Your task to perform on an android device: Search for "macbook air" on target, select the first entry, and add it to the cart. Image 0: 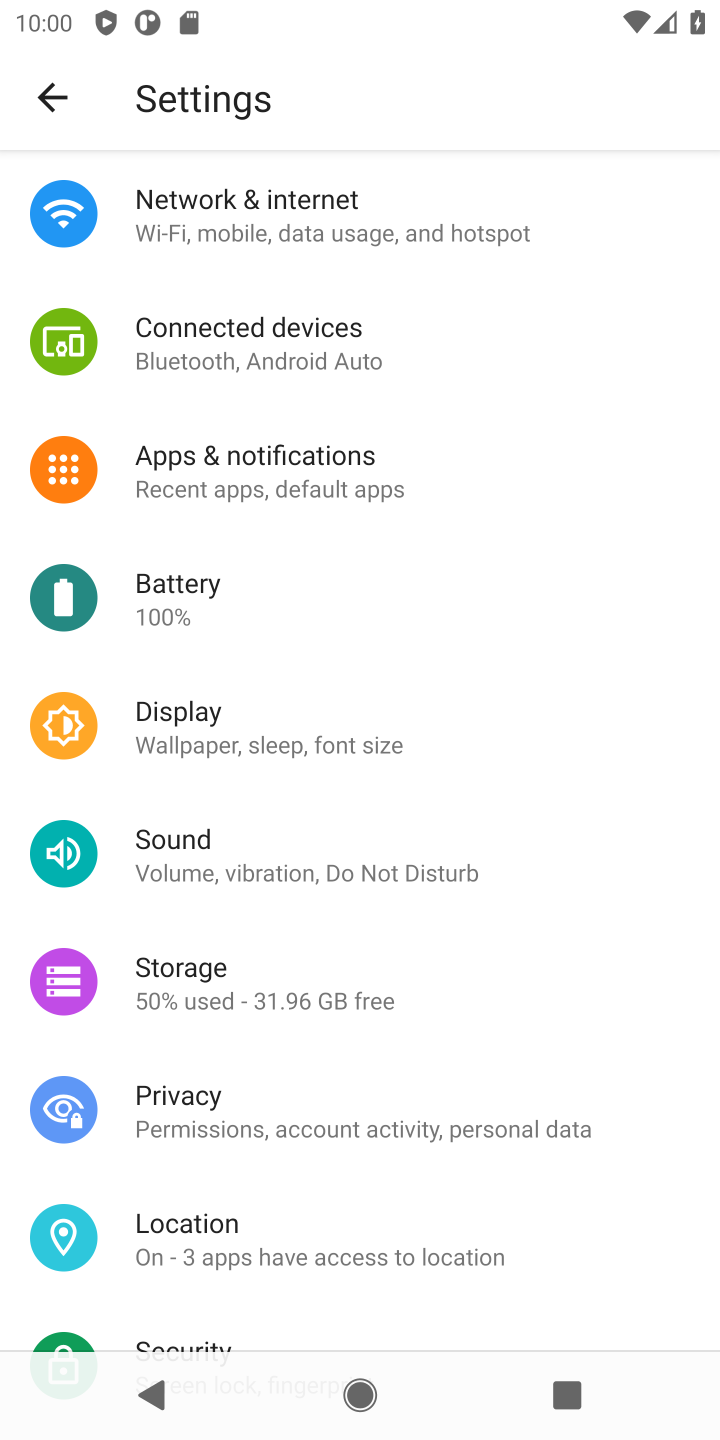
Step 0: press home button
Your task to perform on an android device: Search for "macbook air" on target, select the first entry, and add it to the cart. Image 1: 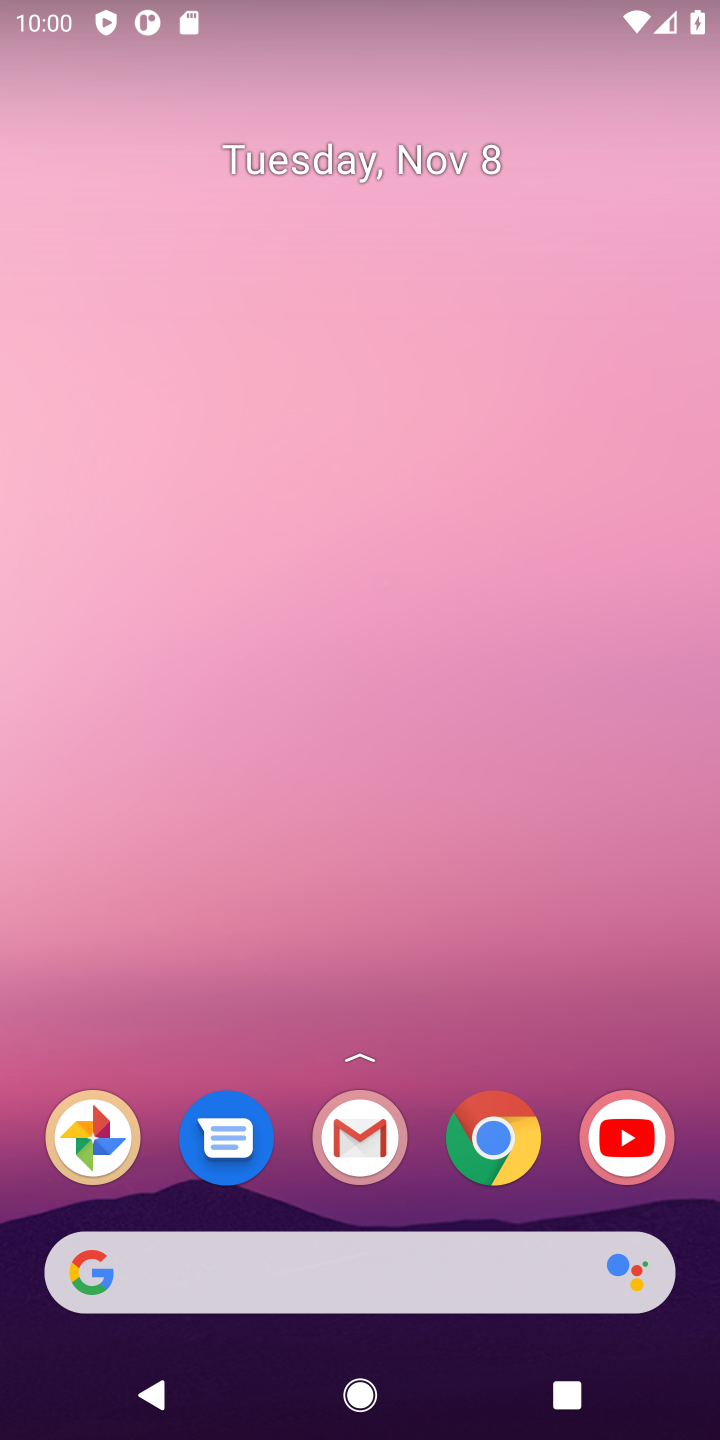
Step 1: click (493, 1139)
Your task to perform on an android device: Search for "macbook air" on target, select the first entry, and add it to the cart. Image 2: 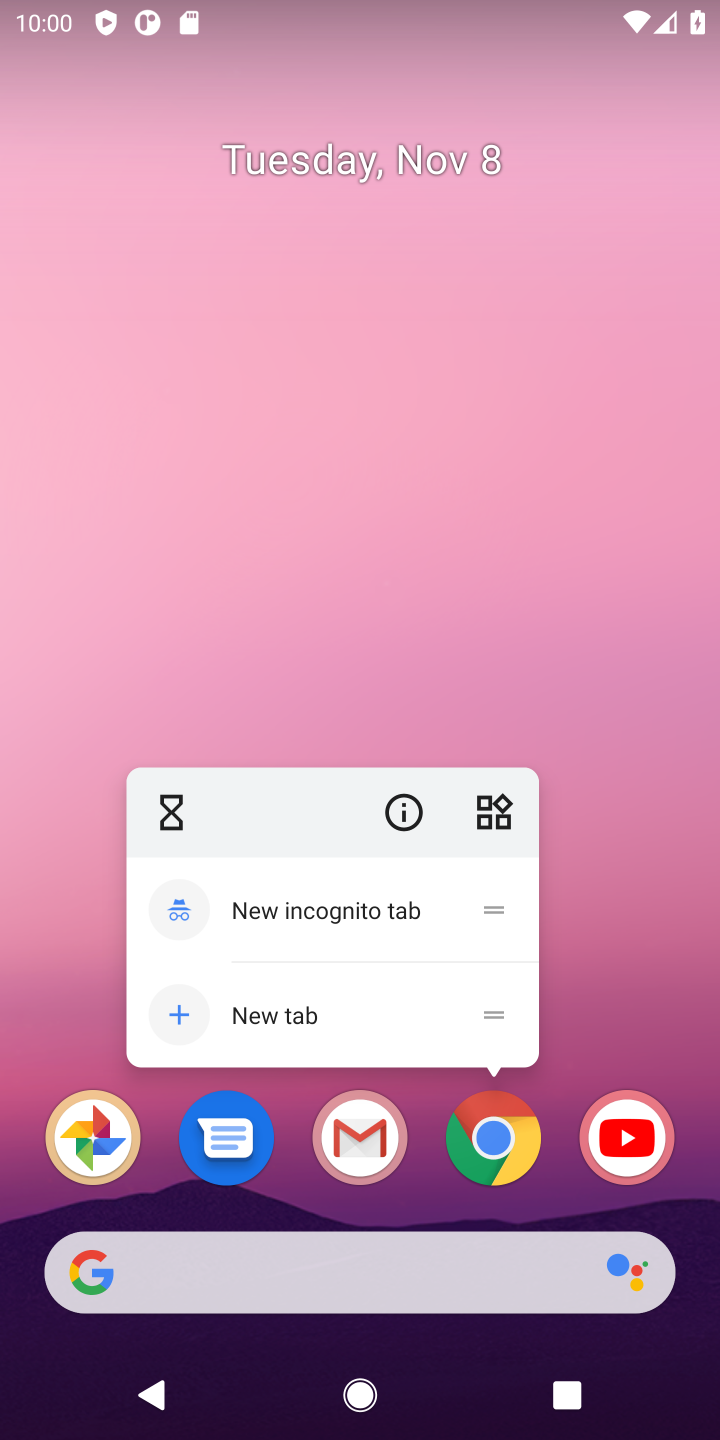
Step 2: click (493, 1144)
Your task to perform on an android device: Search for "macbook air" on target, select the first entry, and add it to the cart. Image 3: 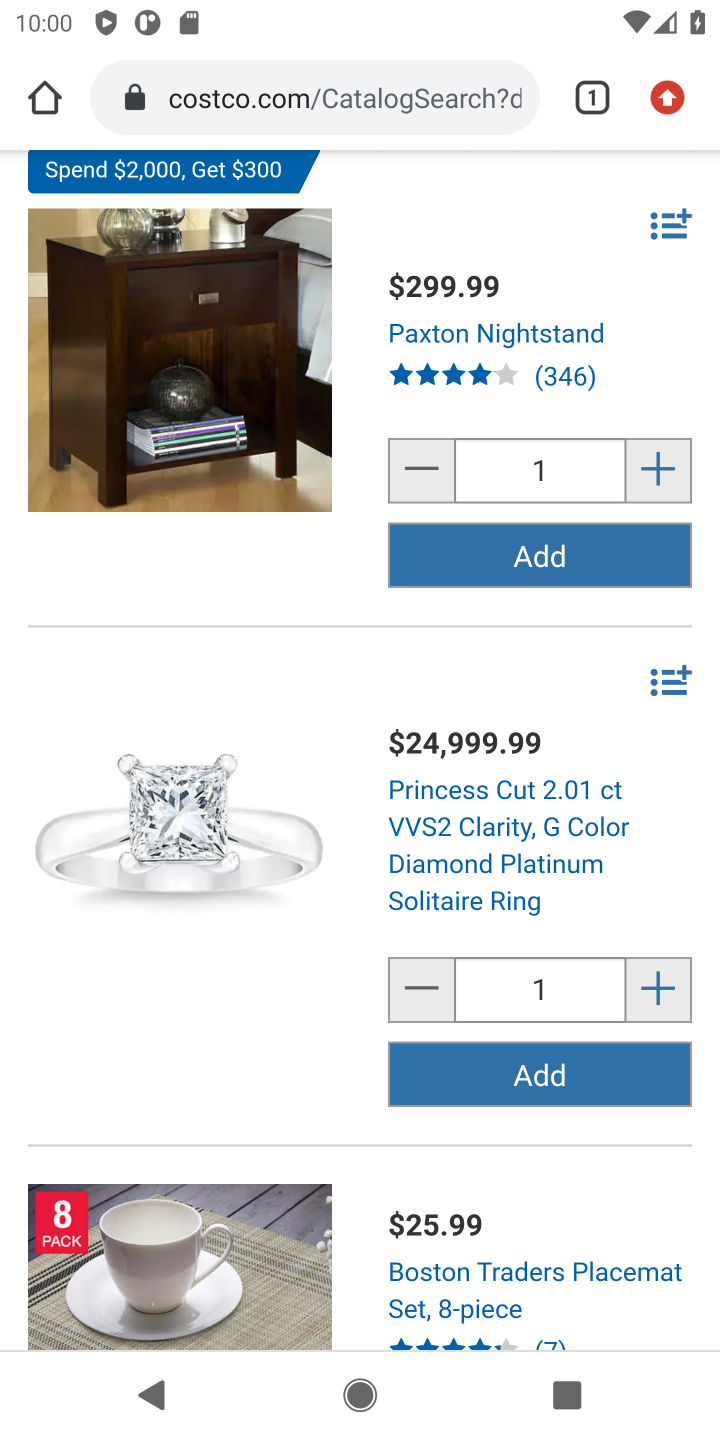
Step 3: click (369, 95)
Your task to perform on an android device: Search for "macbook air" on target, select the first entry, and add it to the cart. Image 4: 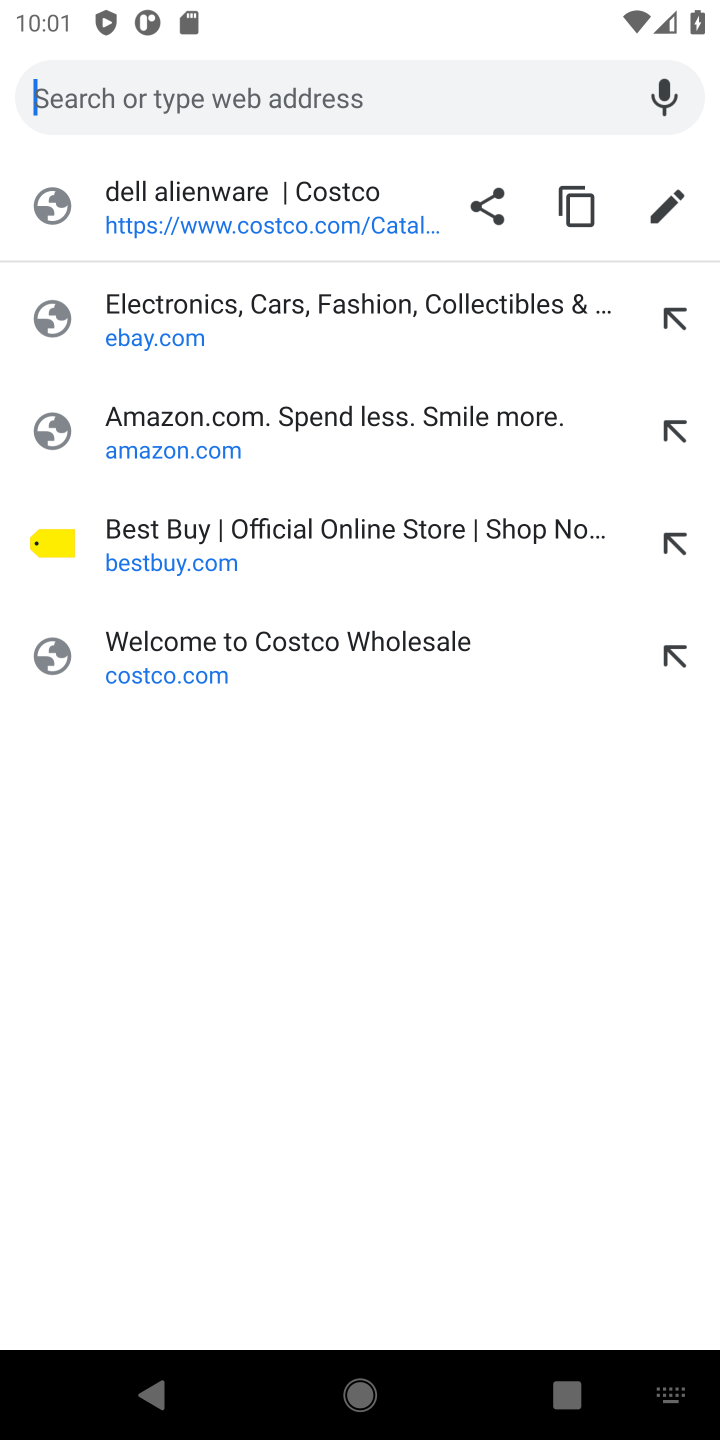
Step 4: type "target"
Your task to perform on an android device: Search for "macbook air" on target, select the first entry, and add it to the cart. Image 5: 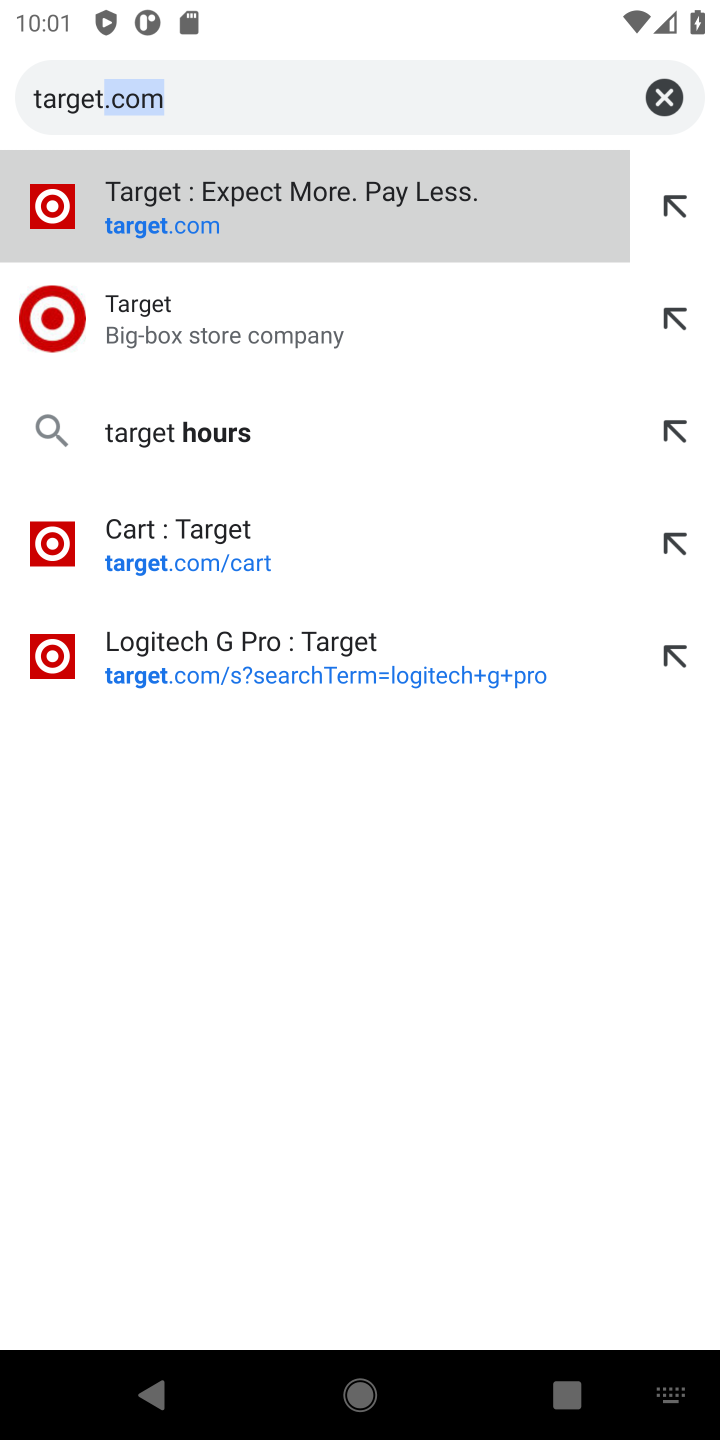
Step 5: press enter
Your task to perform on an android device: Search for "macbook air" on target, select the first entry, and add it to the cart. Image 6: 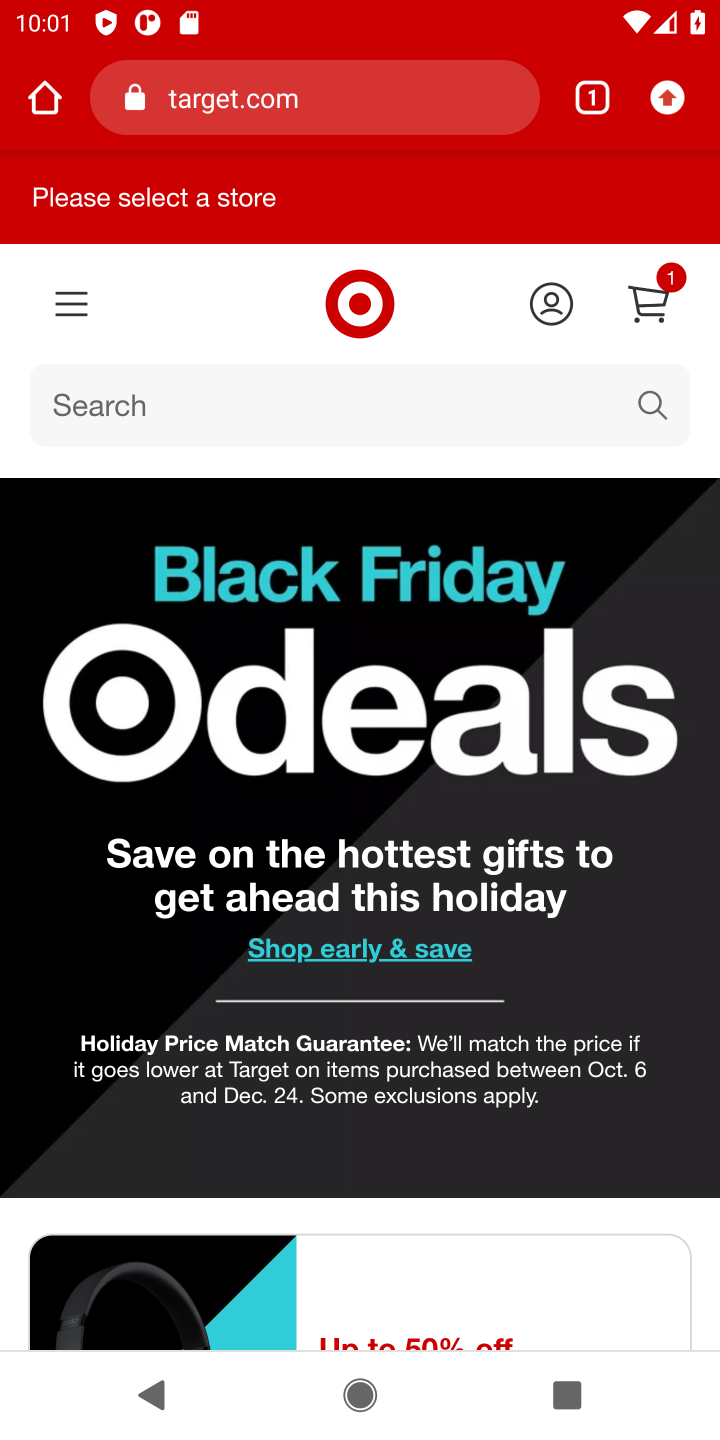
Step 6: click (180, 391)
Your task to perform on an android device: Search for "macbook air" on target, select the first entry, and add it to the cart. Image 7: 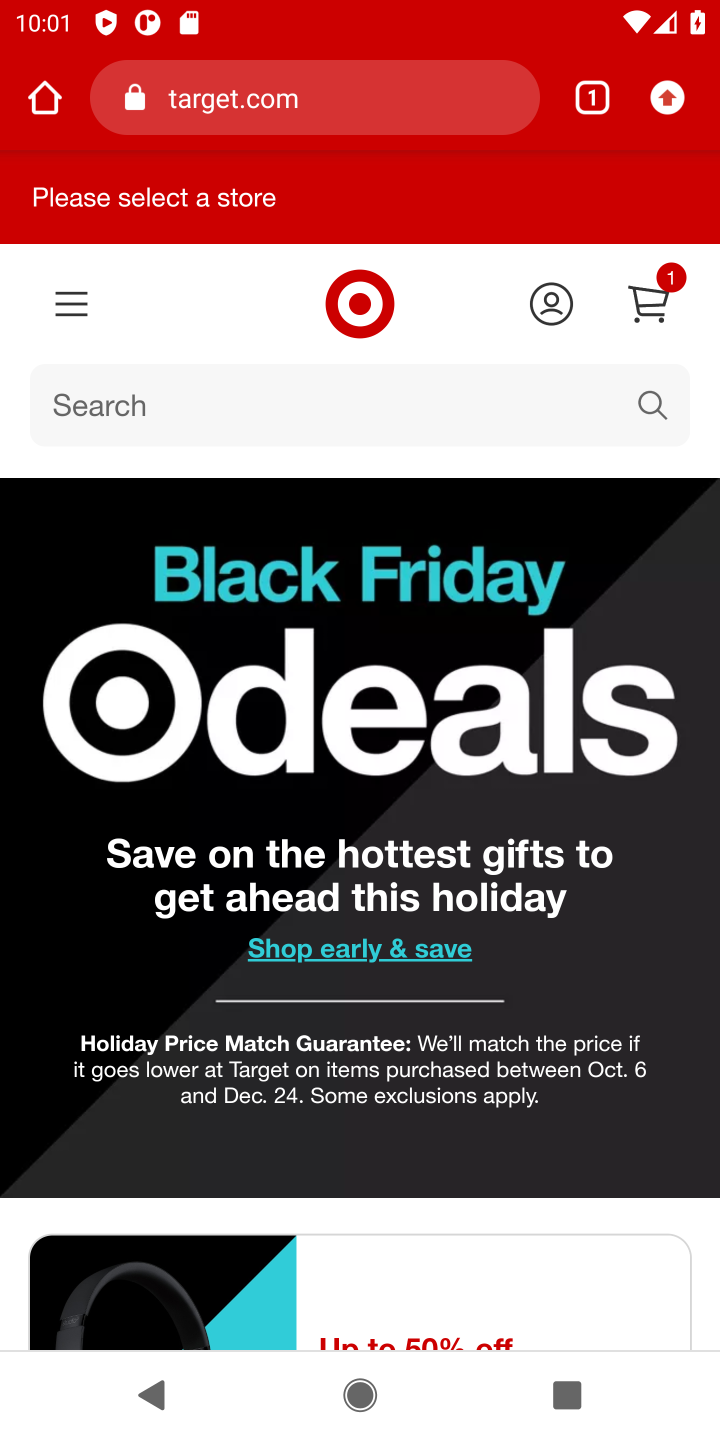
Step 7: click (140, 399)
Your task to perform on an android device: Search for "macbook air" on target, select the first entry, and add it to the cart. Image 8: 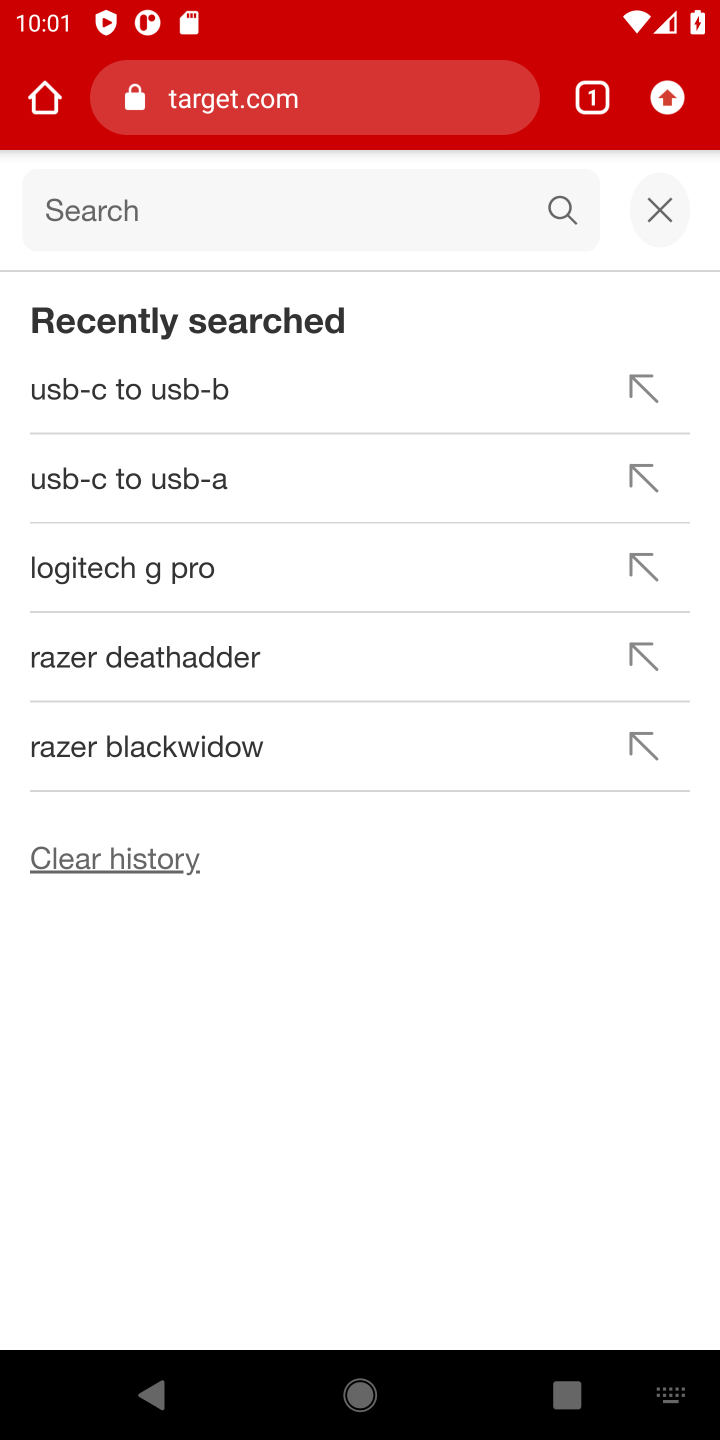
Step 8: type "macbook air"
Your task to perform on an android device: Search for "macbook air" on target, select the first entry, and add it to the cart. Image 9: 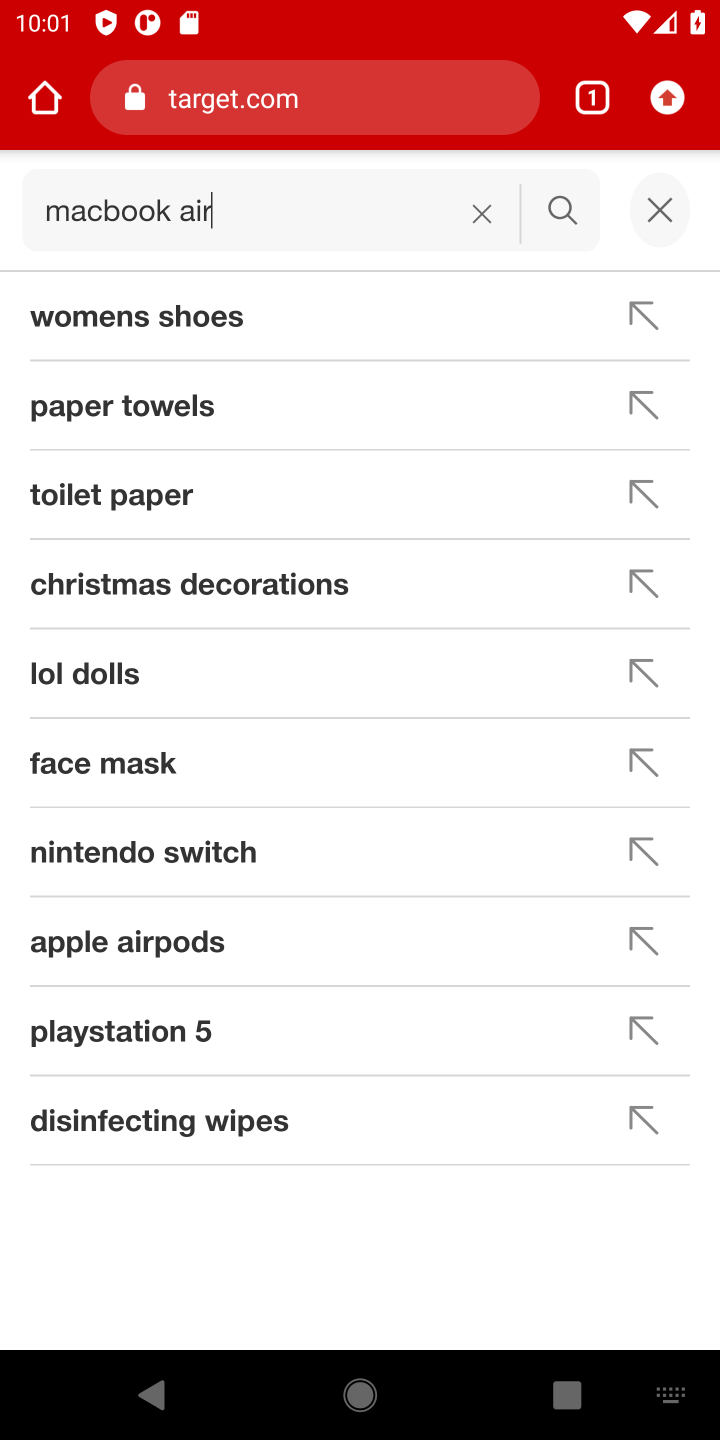
Step 9: press enter
Your task to perform on an android device: Search for "macbook air" on target, select the first entry, and add it to the cart. Image 10: 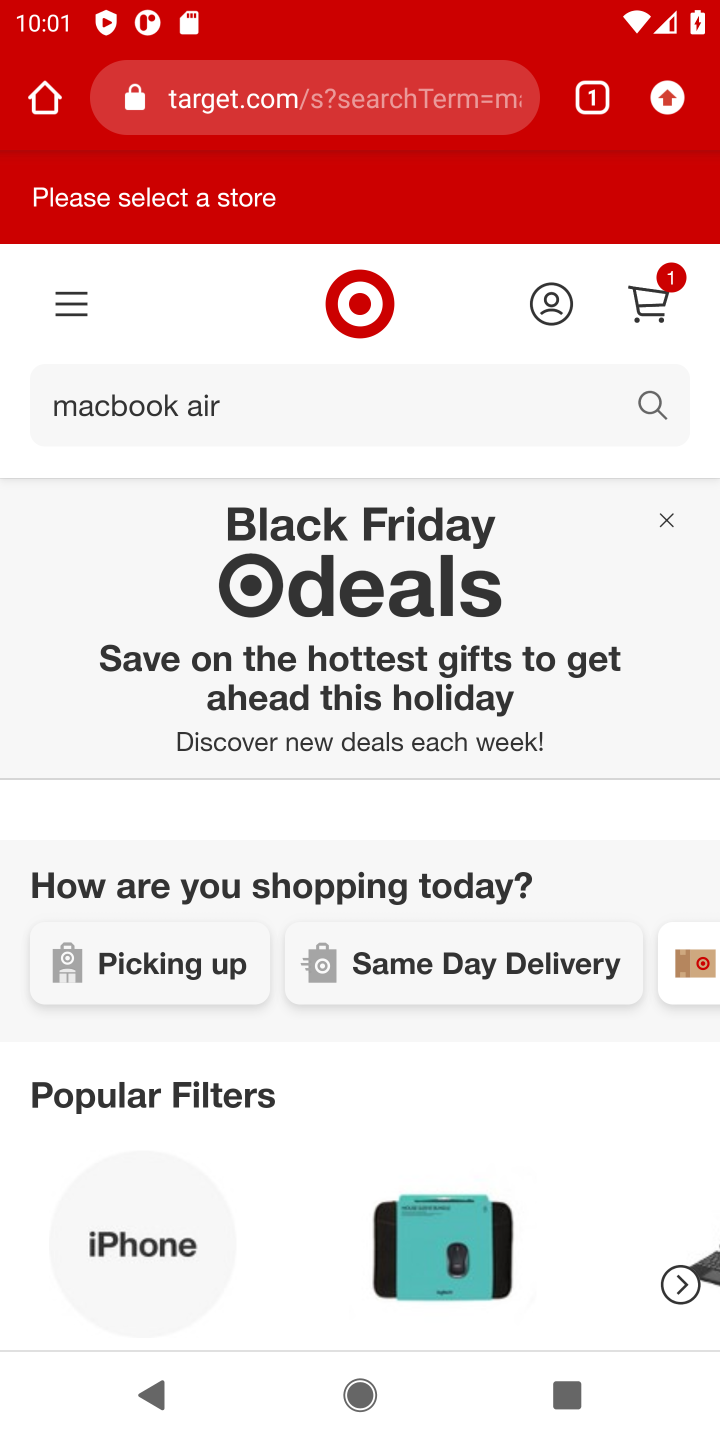
Step 10: task complete